Your task to perform on an android device: Go to ESPN.com Image 0: 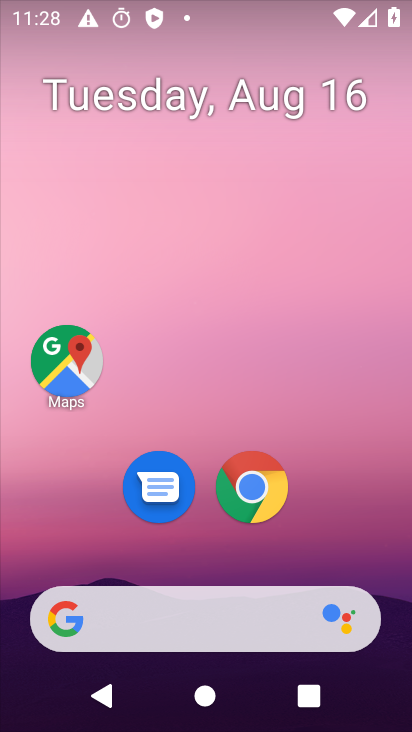
Step 0: click (267, 505)
Your task to perform on an android device: Go to ESPN.com Image 1: 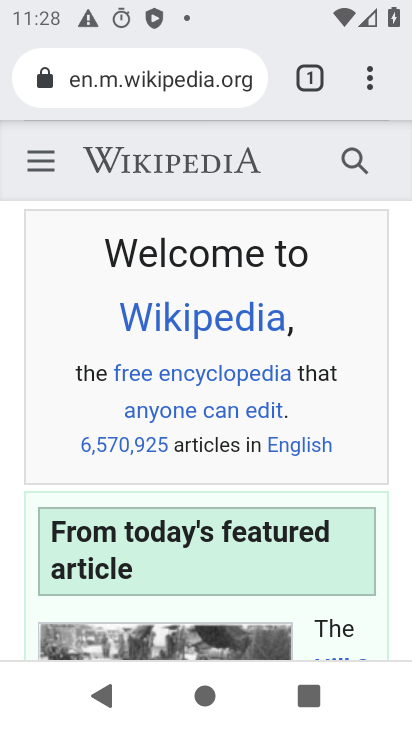
Step 1: click (89, 63)
Your task to perform on an android device: Go to ESPN.com Image 2: 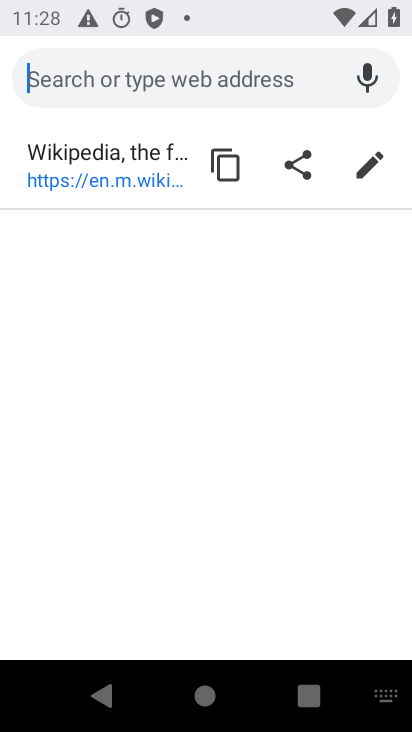
Step 2: type "espn.com"
Your task to perform on an android device: Go to ESPN.com Image 3: 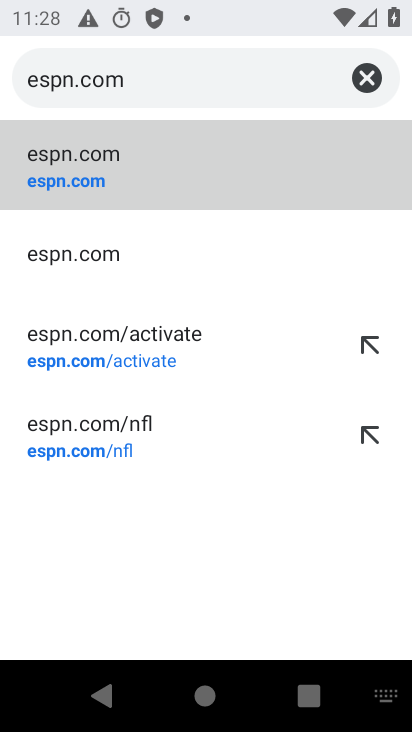
Step 3: click (161, 173)
Your task to perform on an android device: Go to ESPN.com Image 4: 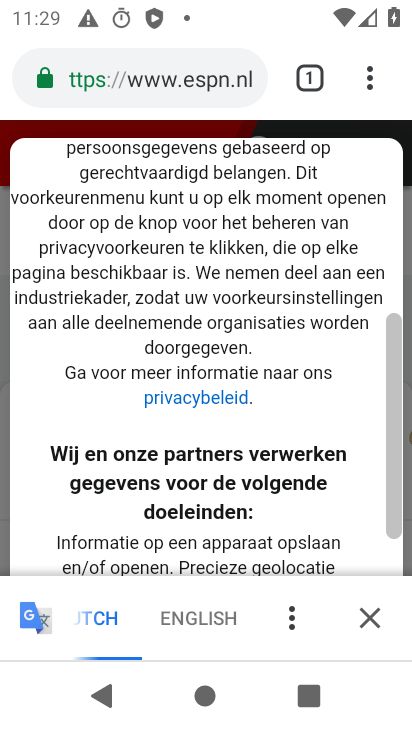
Step 4: task complete